Your task to perform on an android device: search for starred emails in the gmail app Image 0: 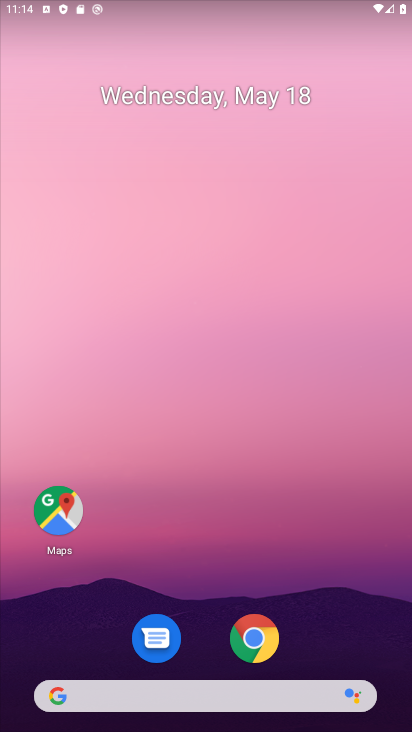
Step 0: drag from (321, 632) to (325, 23)
Your task to perform on an android device: search for starred emails in the gmail app Image 1: 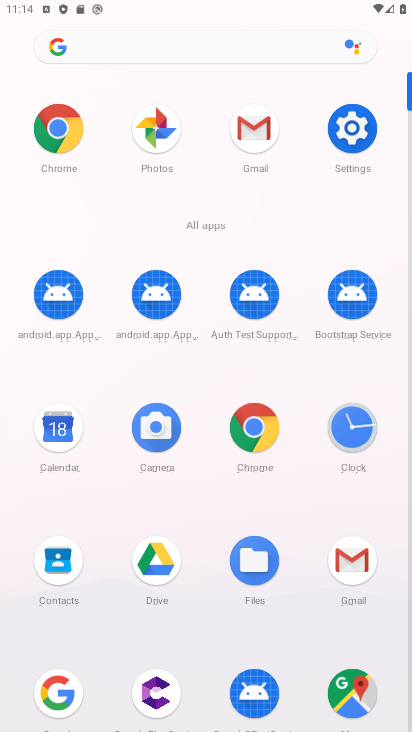
Step 1: click (355, 564)
Your task to perform on an android device: search for starred emails in the gmail app Image 2: 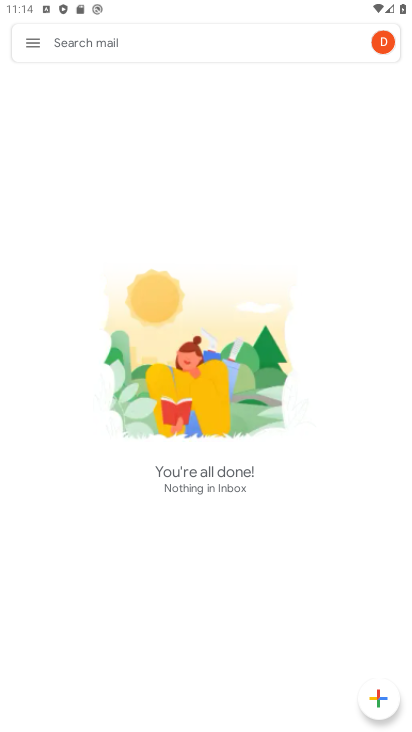
Step 2: click (41, 49)
Your task to perform on an android device: search for starred emails in the gmail app Image 3: 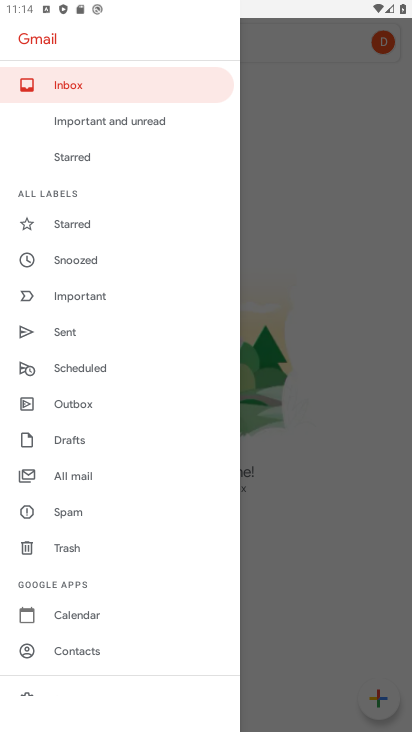
Step 3: click (101, 230)
Your task to perform on an android device: search for starred emails in the gmail app Image 4: 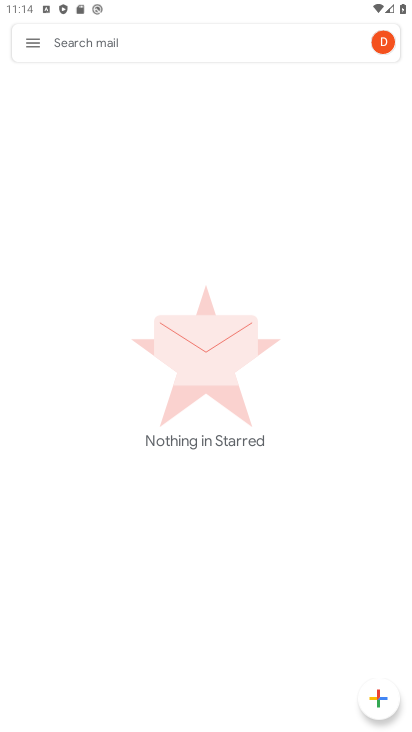
Step 4: task complete